Your task to perform on an android device: set the timer Image 0: 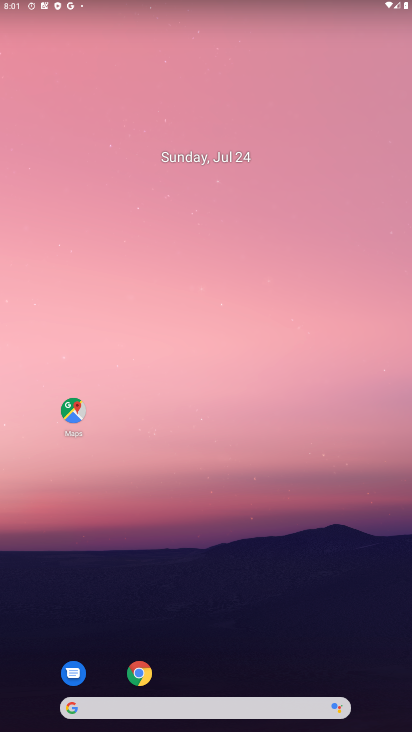
Step 0: drag from (36, 712) to (245, 41)
Your task to perform on an android device: set the timer Image 1: 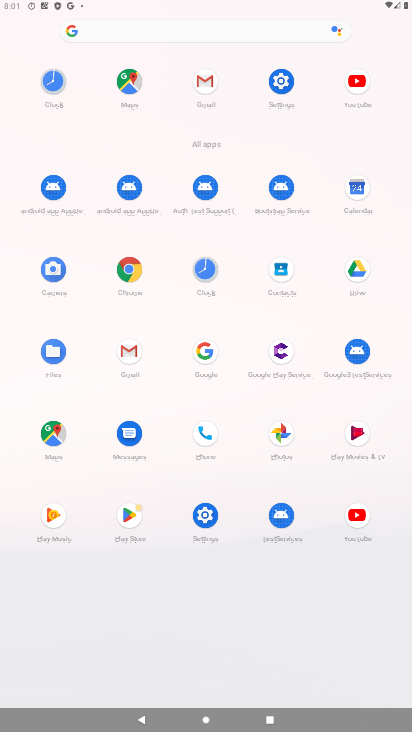
Step 1: click (198, 507)
Your task to perform on an android device: set the timer Image 2: 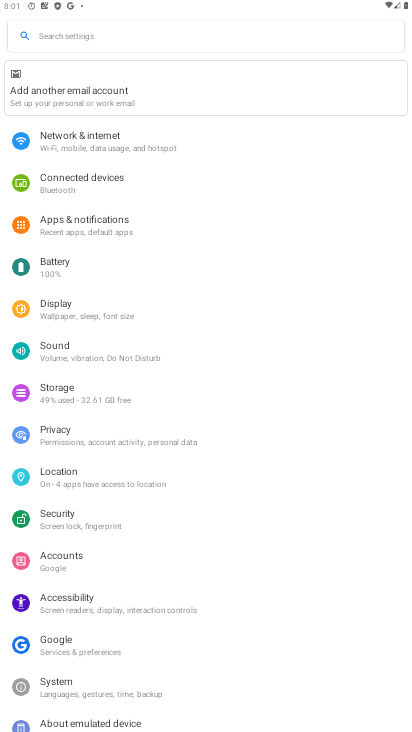
Step 2: press home button
Your task to perform on an android device: set the timer Image 3: 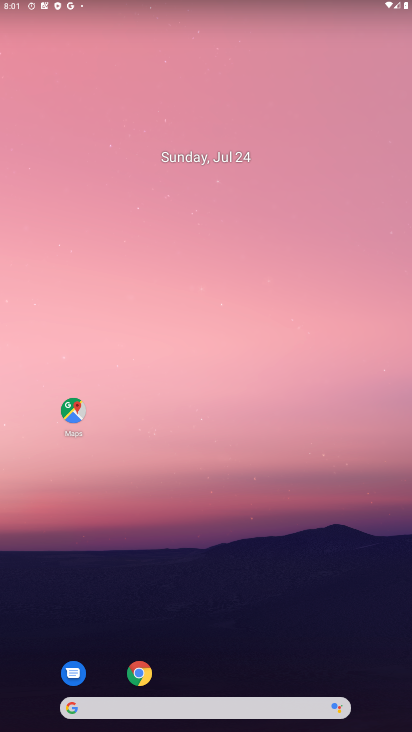
Step 3: click (34, 700)
Your task to perform on an android device: set the timer Image 4: 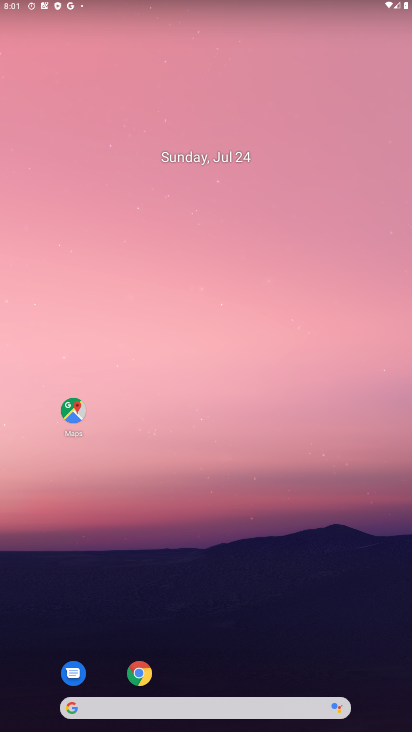
Step 4: drag from (36, 693) to (104, 444)
Your task to perform on an android device: set the timer Image 5: 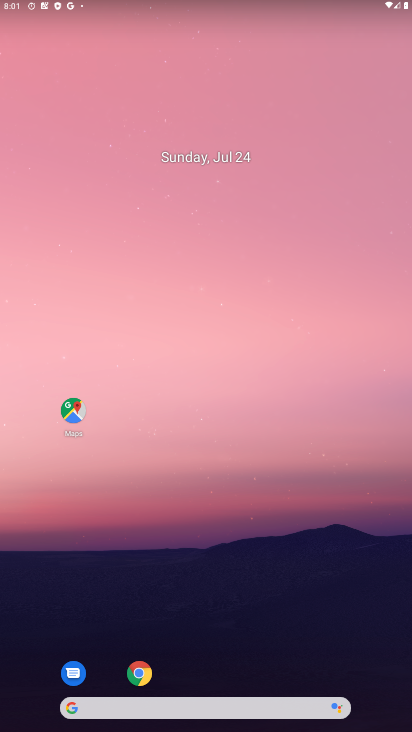
Step 5: click (50, 638)
Your task to perform on an android device: set the timer Image 6: 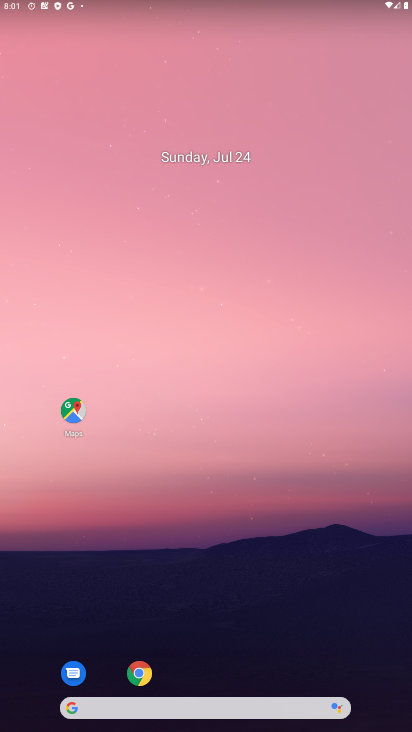
Step 6: task complete